Your task to perform on an android device: check data usage Image 0: 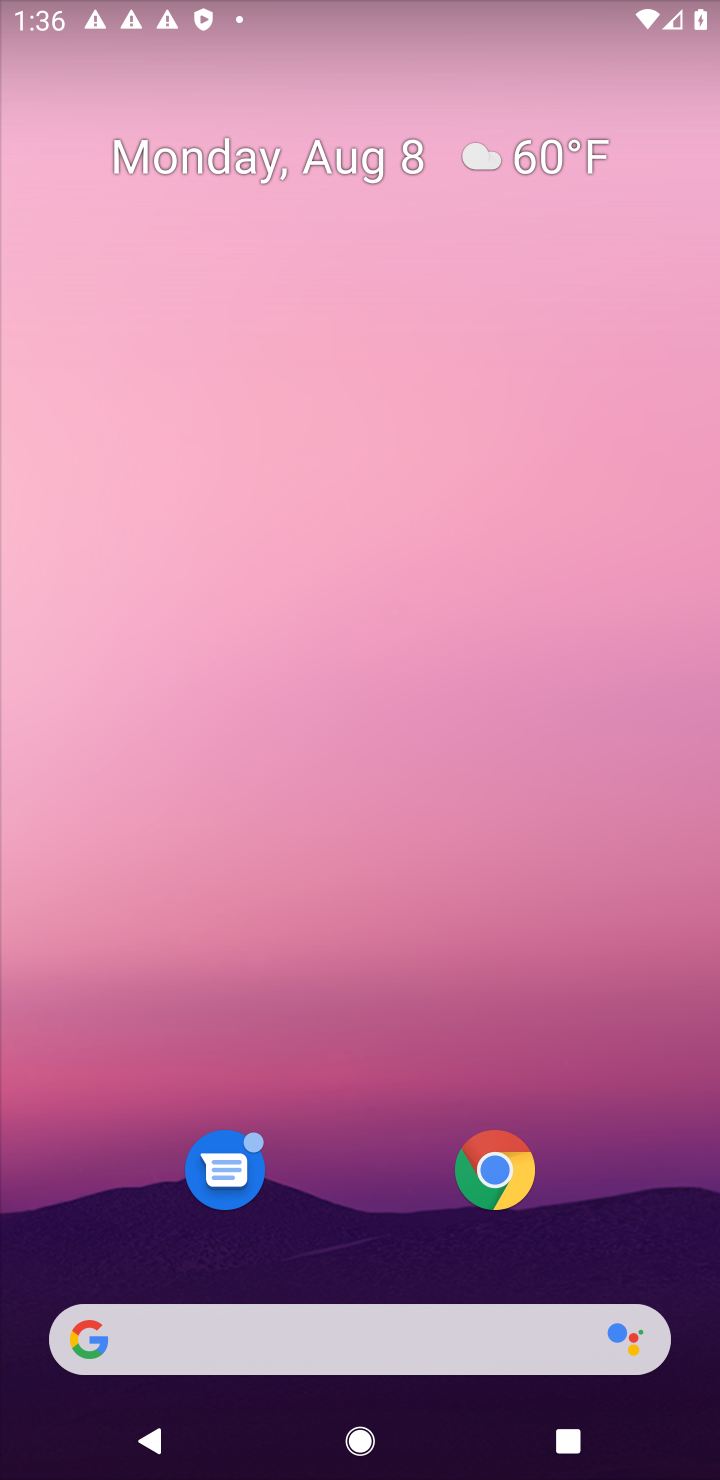
Step 0: drag from (366, 1050) to (412, 377)
Your task to perform on an android device: check data usage Image 1: 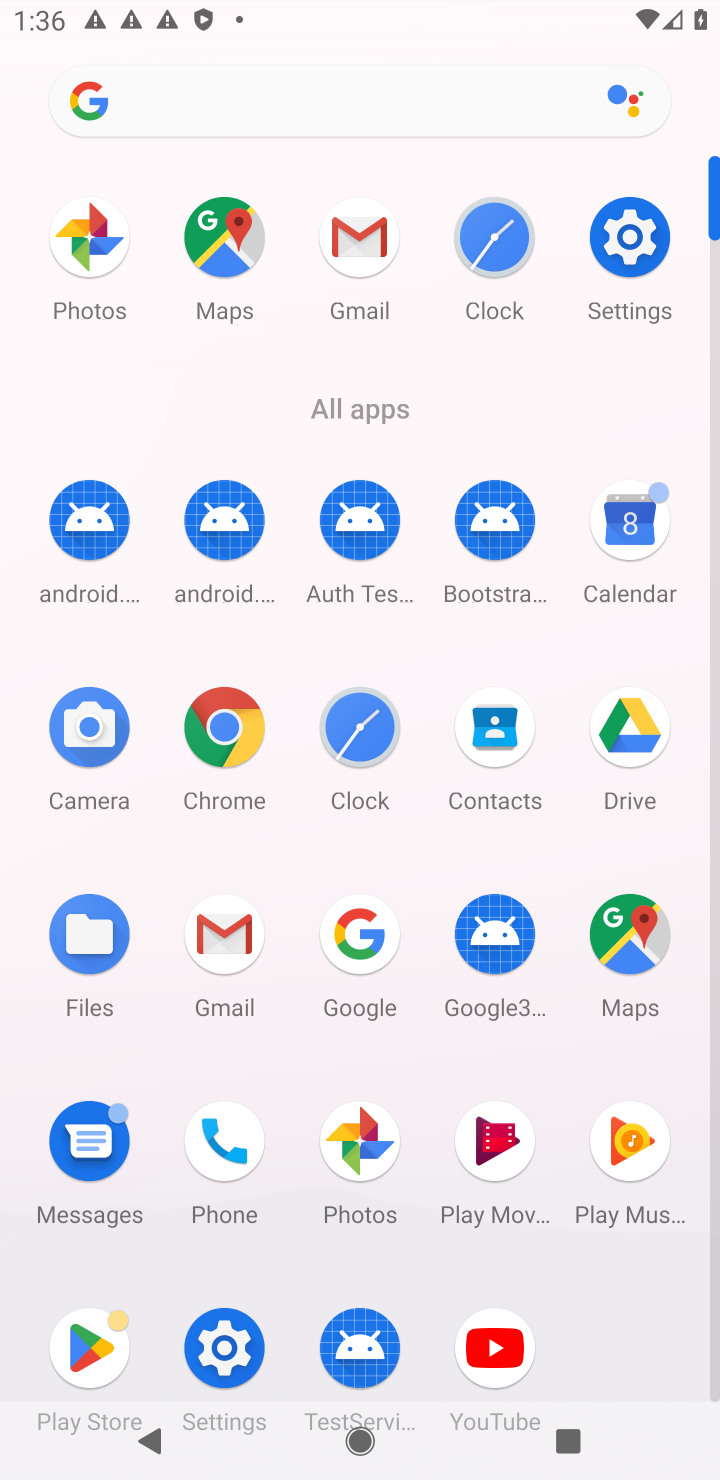
Step 1: click (658, 260)
Your task to perform on an android device: check data usage Image 2: 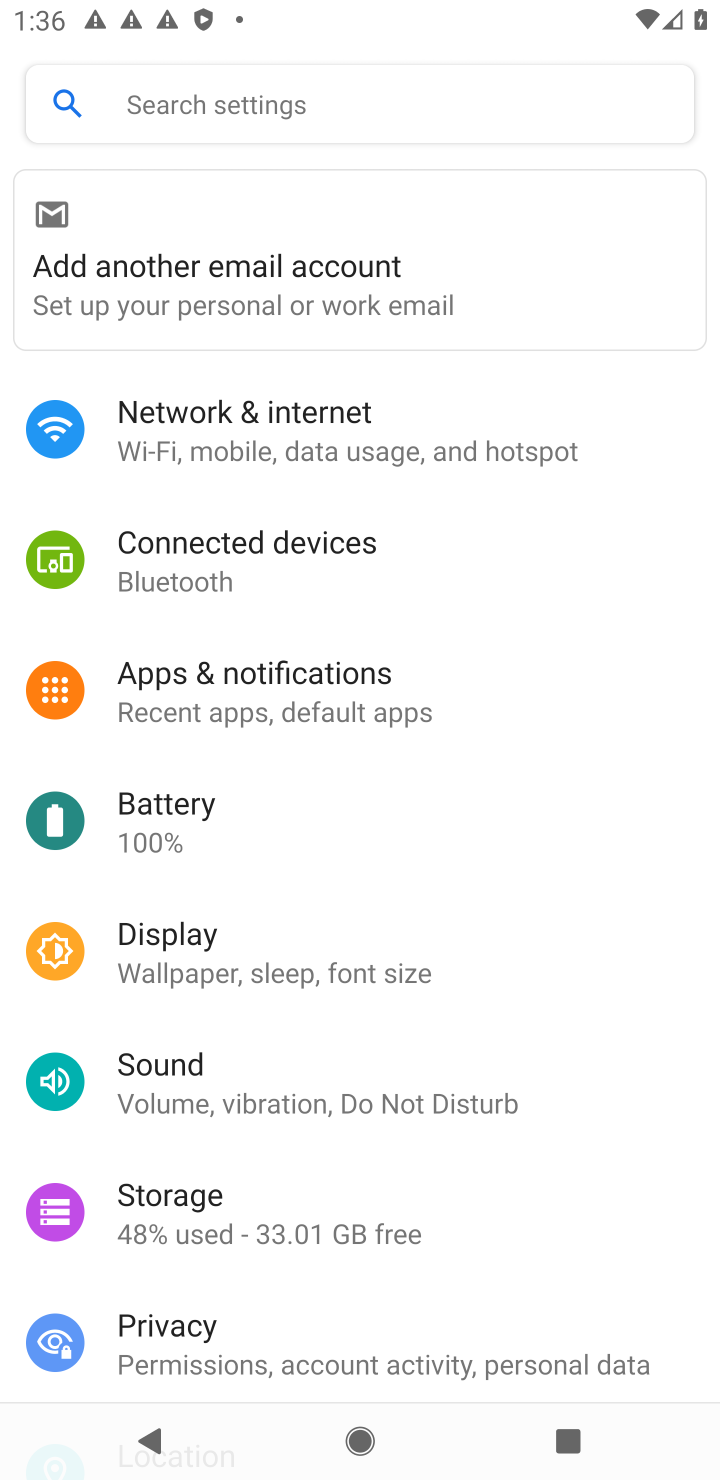
Step 2: click (312, 463)
Your task to perform on an android device: check data usage Image 3: 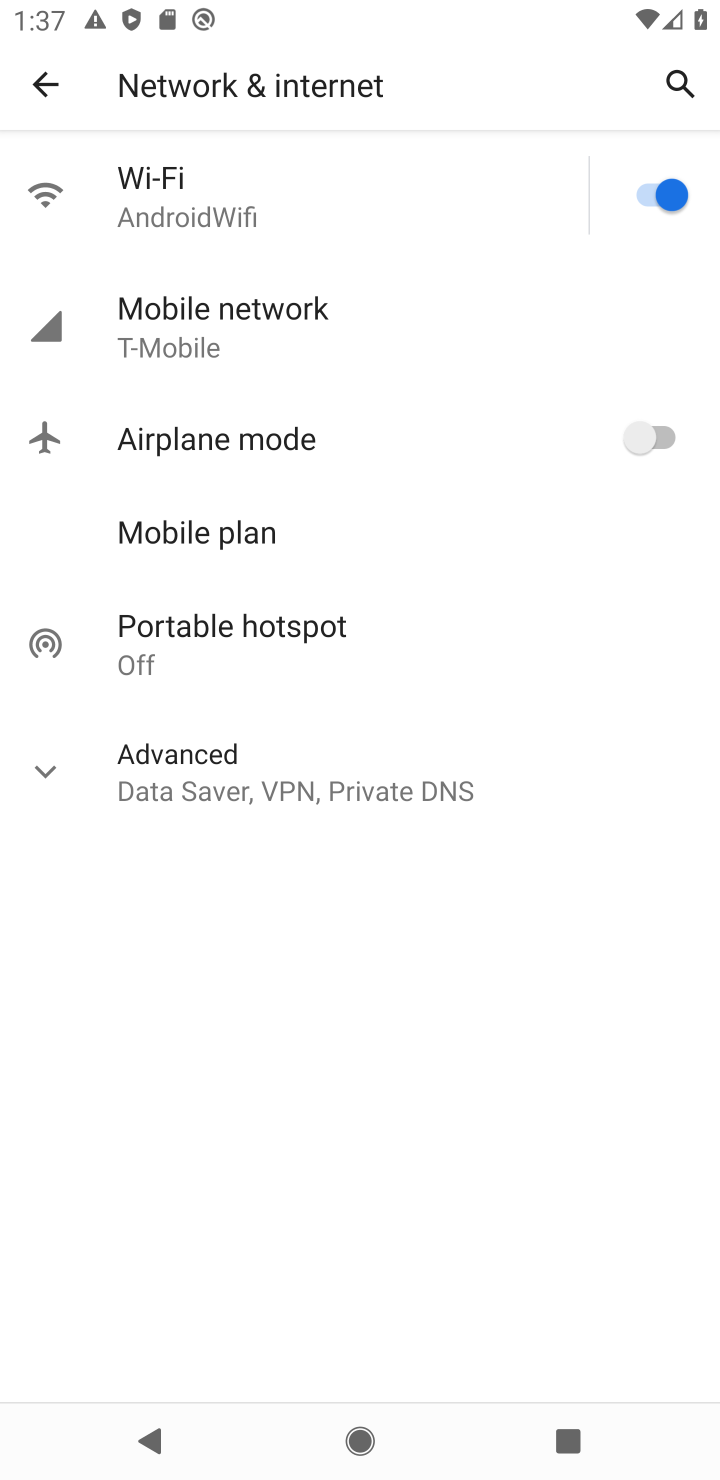
Step 3: click (277, 342)
Your task to perform on an android device: check data usage Image 4: 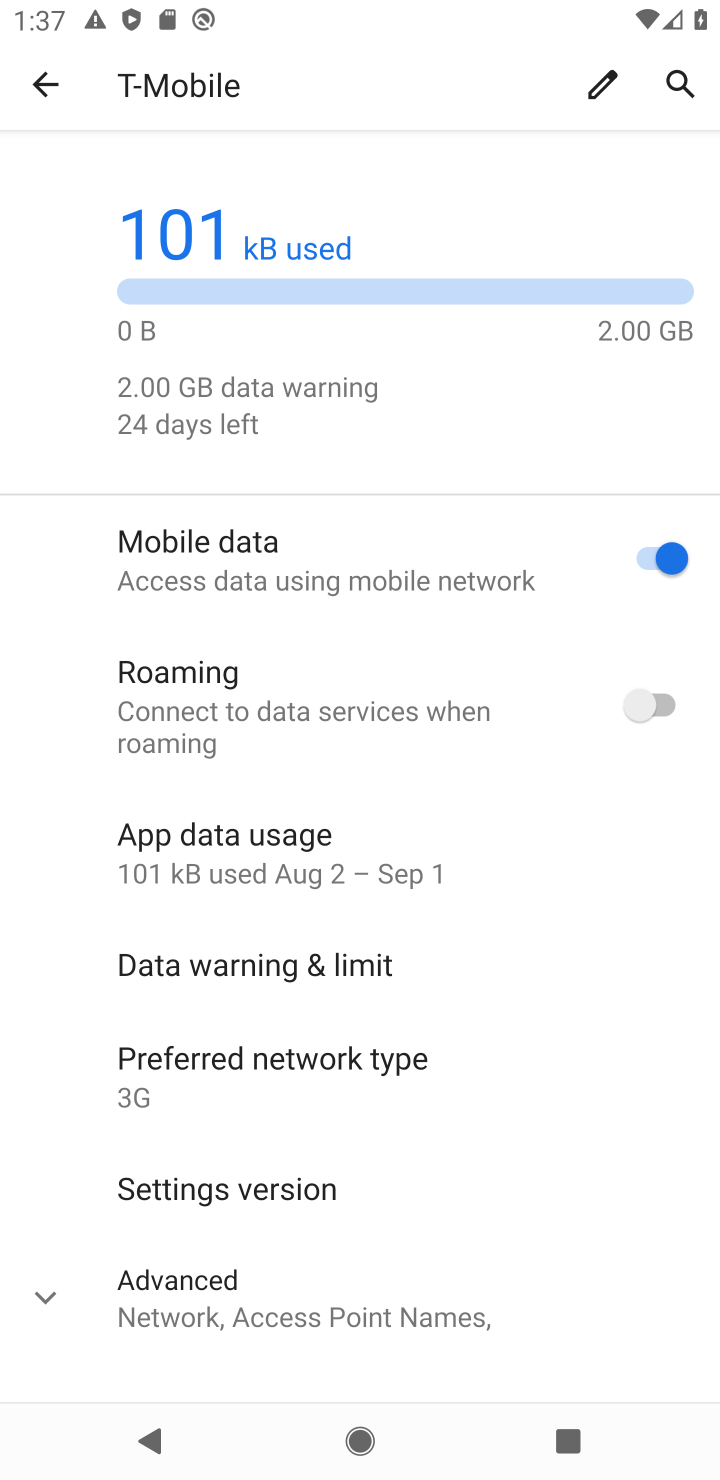
Step 4: click (321, 816)
Your task to perform on an android device: check data usage Image 5: 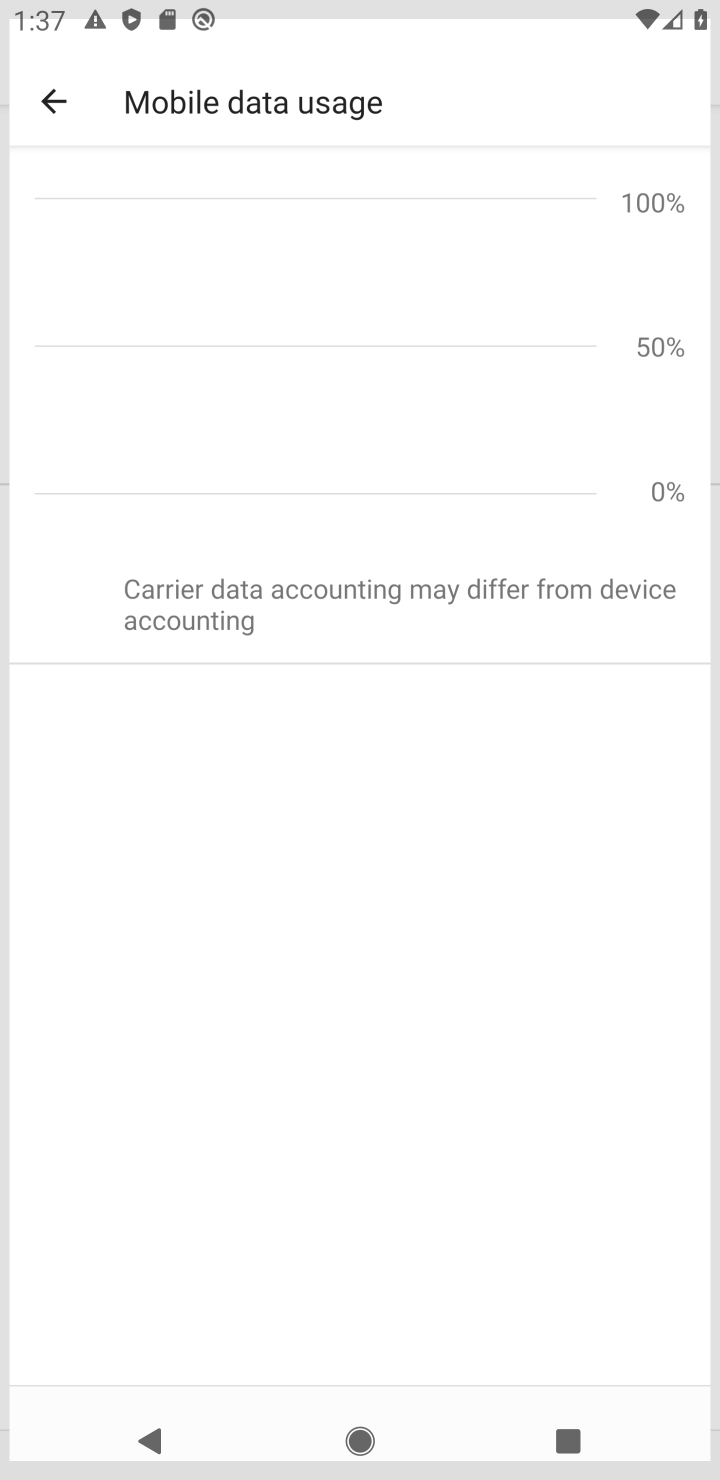
Step 5: task complete